Your task to perform on an android device: Open Chrome and go to settings Image 0: 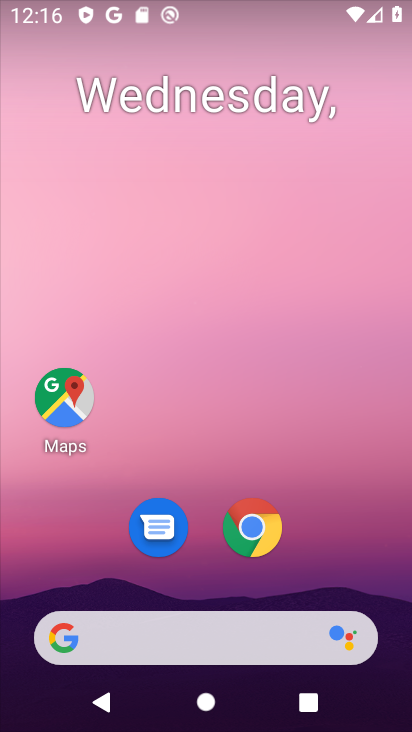
Step 0: click (248, 529)
Your task to perform on an android device: Open Chrome and go to settings Image 1: 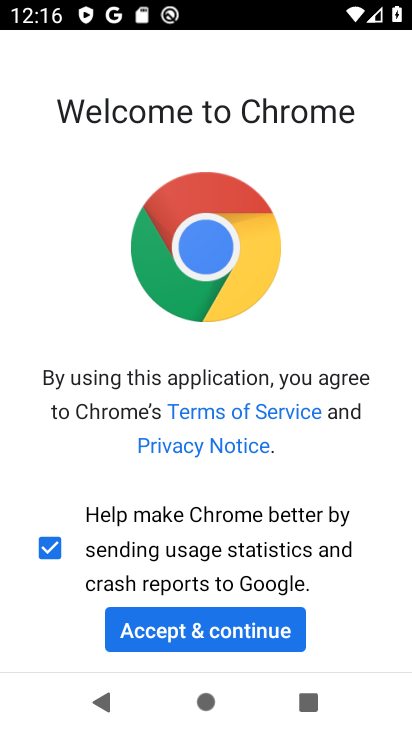
Step 1: click (263, 632)
Your task to perform on an android device: Open Chrome and go to settings Image 2: 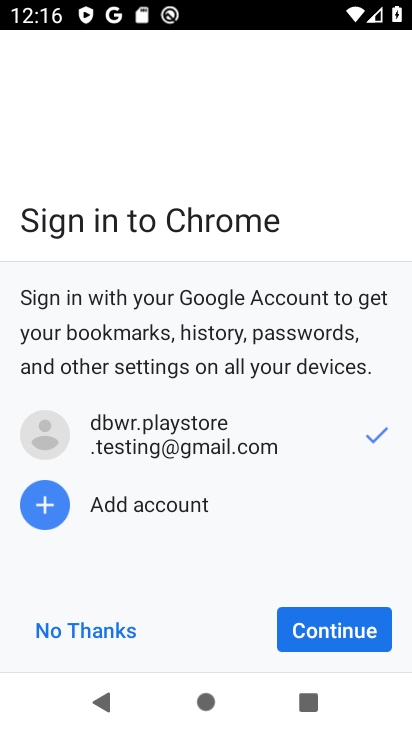
Step 2: click (301, 627)
Your task to perform on an android device: Open Chrome and go to settings Image 3: 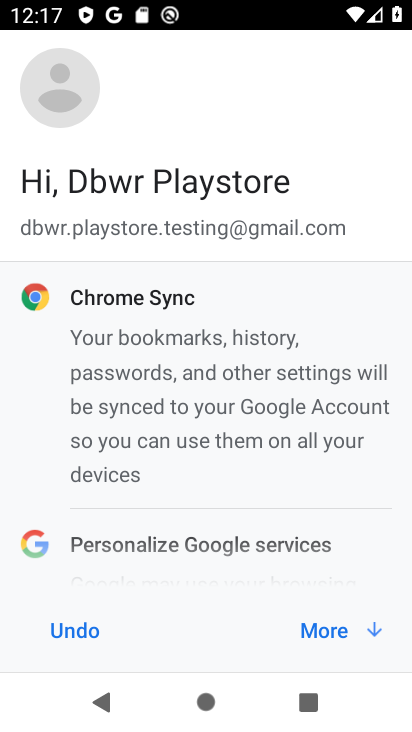
Step 3: click (334, 624)
Your task to perform on an android device: Open Chrome and go to settings Image 4: 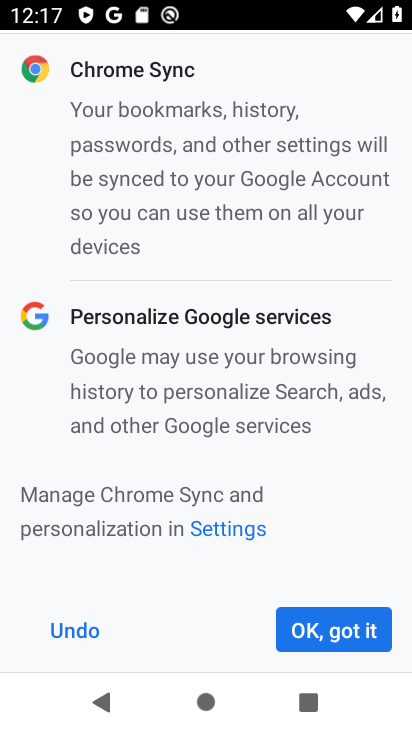
Step 4: click (359, 618)
Your task to perform on an android device: Open Chrome and go to settings Image 5: 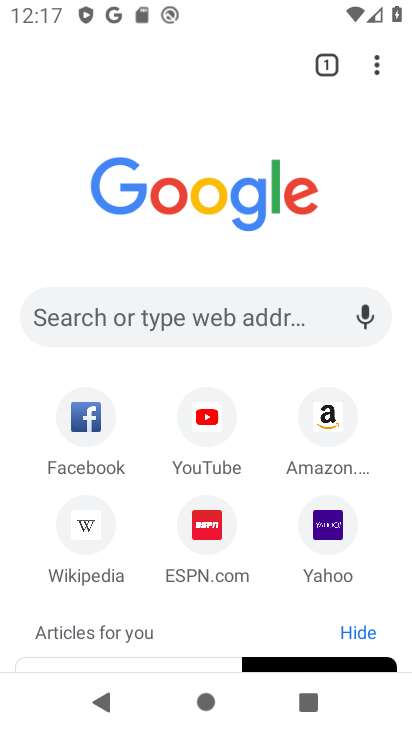
Step 5: click (373, 76)
Your task to perform on an android device: Open Chrome and go to settings Image 6: 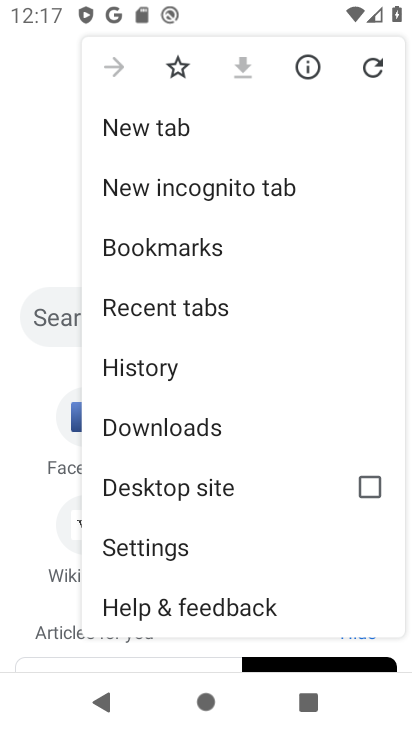
Step 6: click (240, 553)
Your task to perform on an android device: Open Chrome and go to settings Image 7: 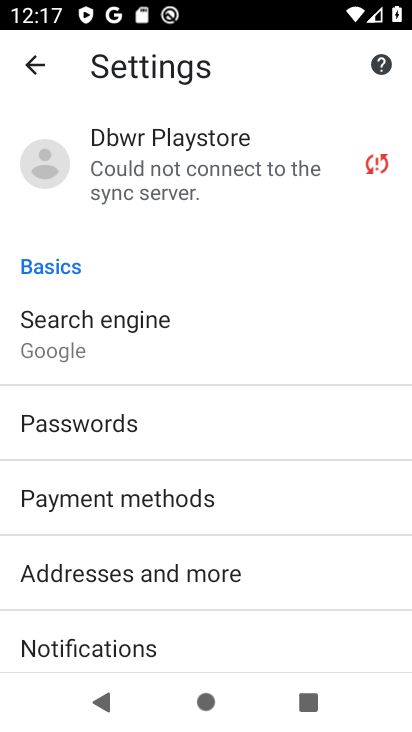
Step 7: task complete